Your task to perform on an android device: turn off location history Image 0: 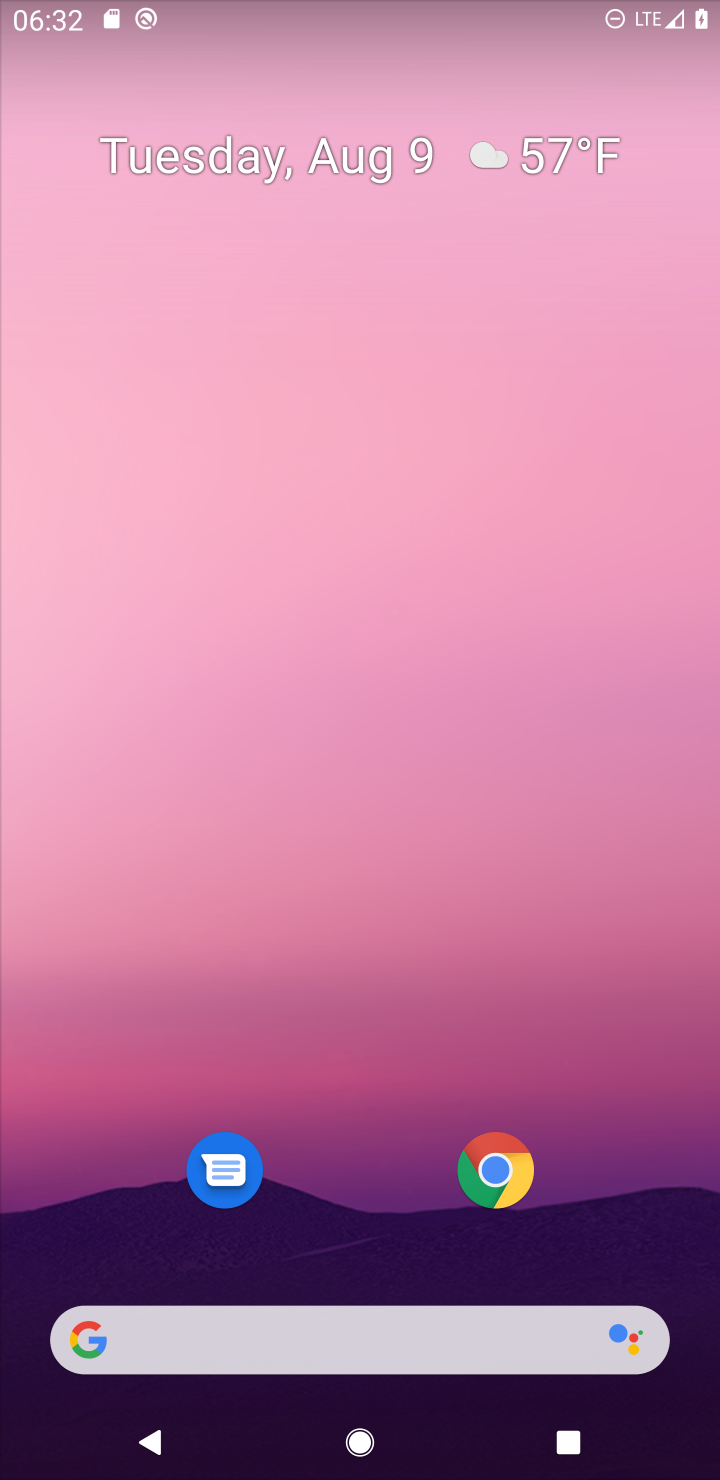
Step 0: press home button
Your task to perform on an android device: turn off location history Image 1: 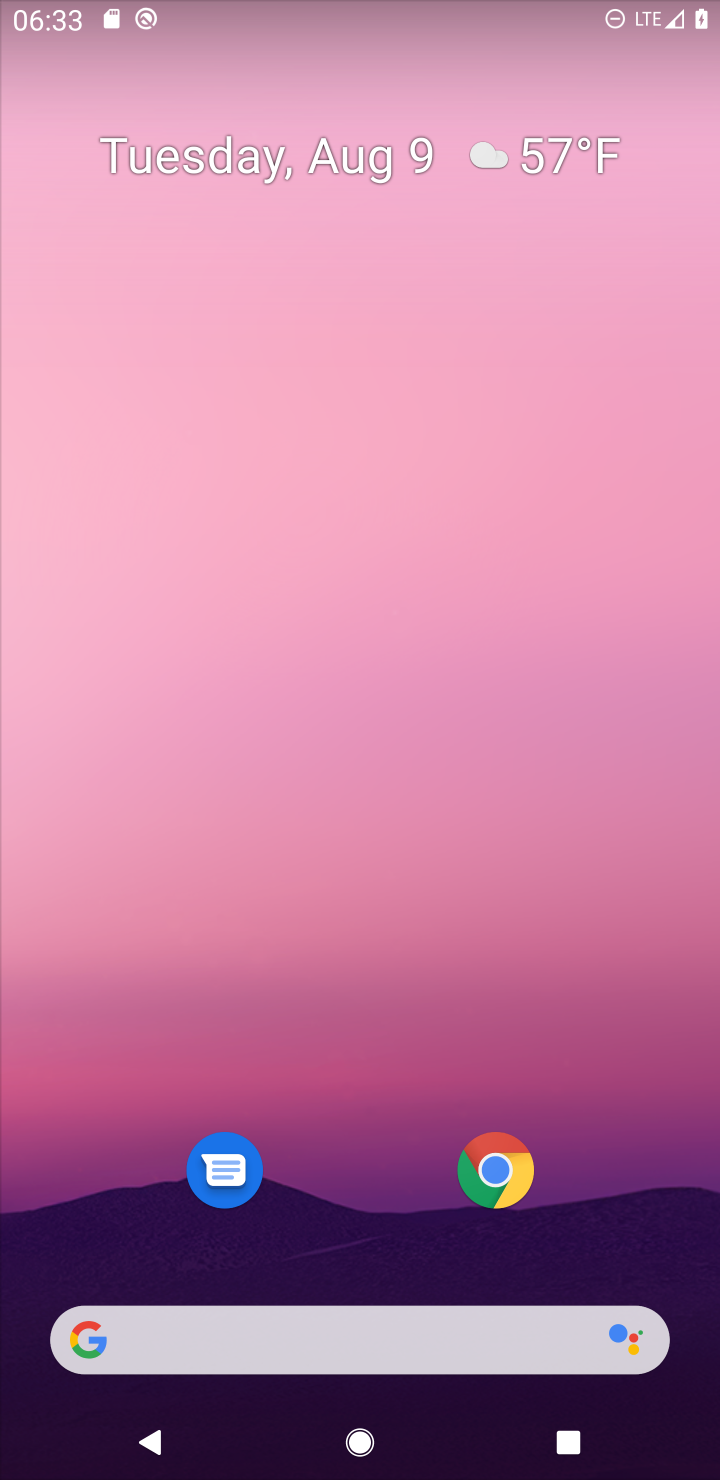
Step 1: drag from (368, 1228) to (270, 102)
Your task to perform on an android device: turn off location history Image 2: 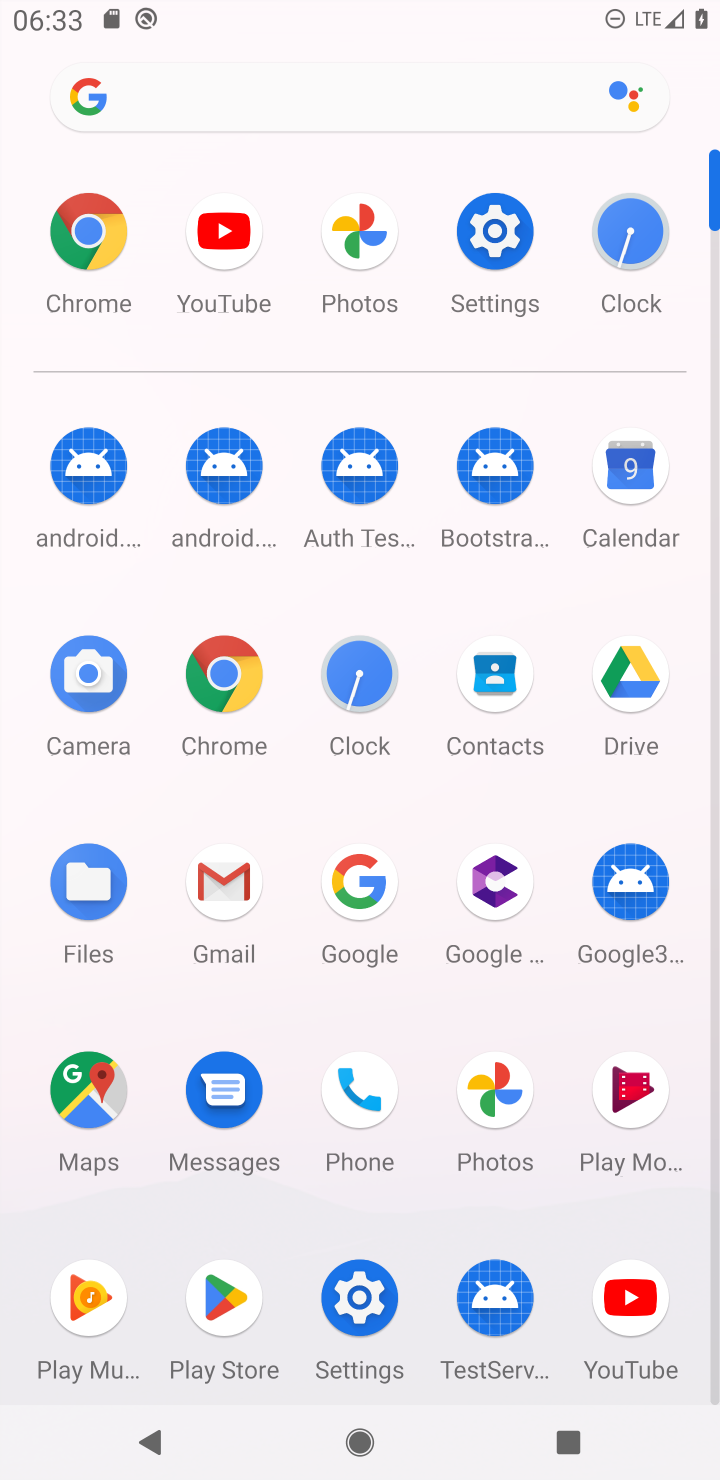
Step 2: click (360, 1297)
Your task to perform on an android device: turn off location history Image 3: 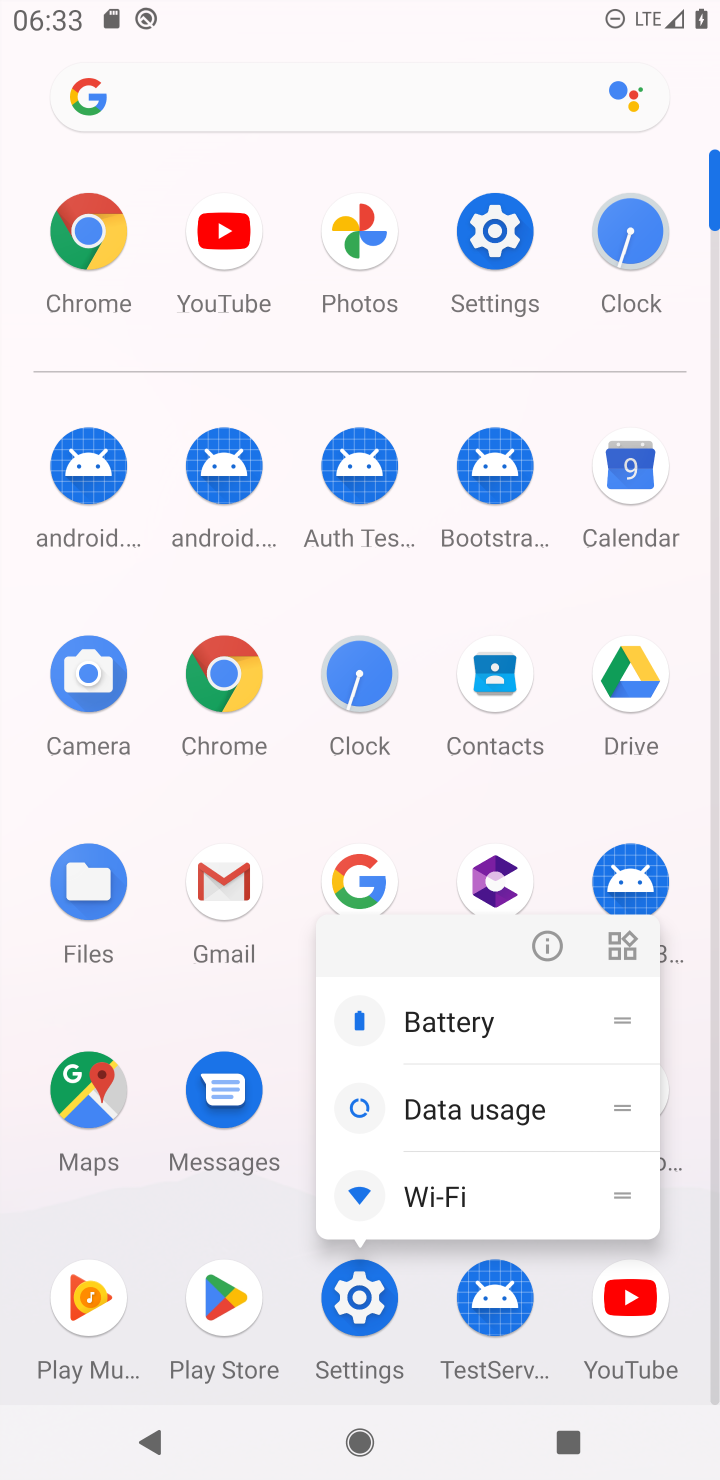
Step 3: click (491, 219)
Your task to perform on an android device: turn off location history Image 4: 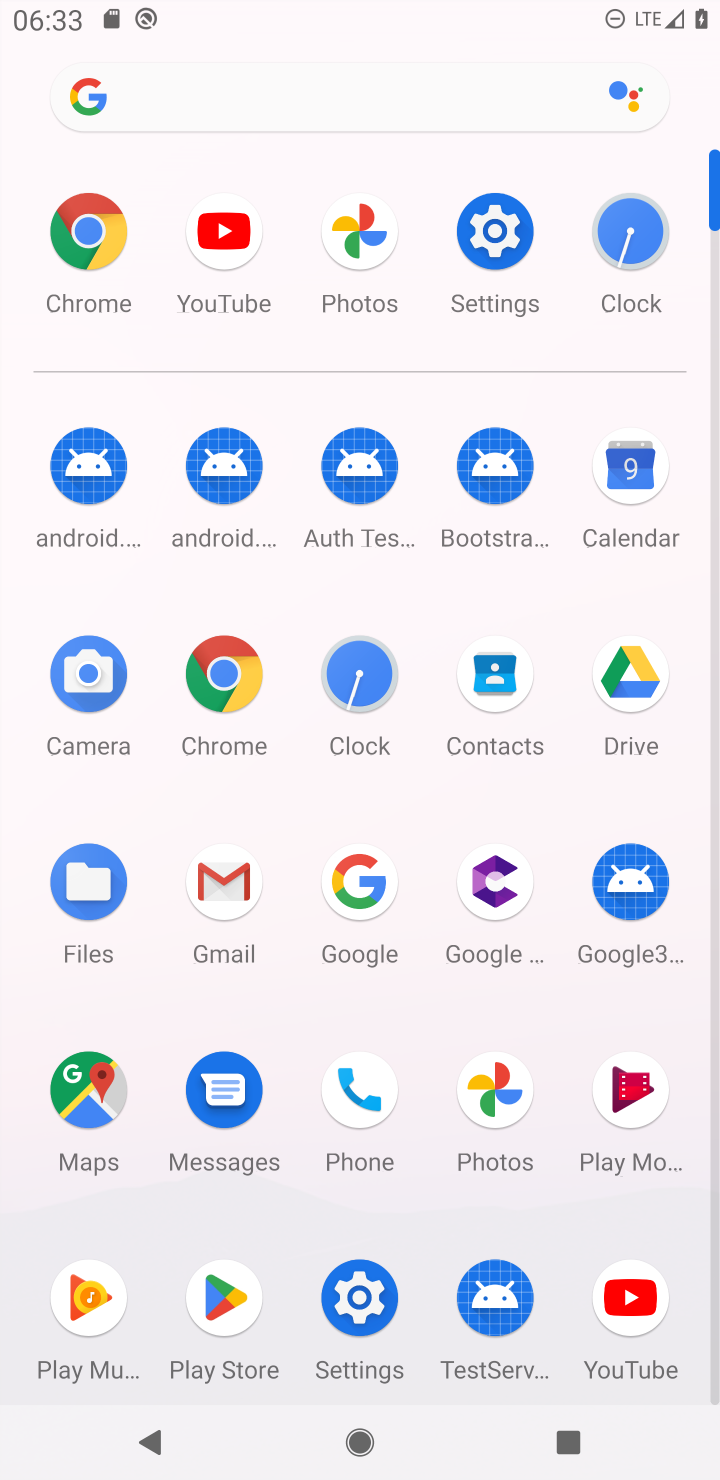
Step 4: click (491, 219)
Your task to perform on an android device: turn off location history Image 5: 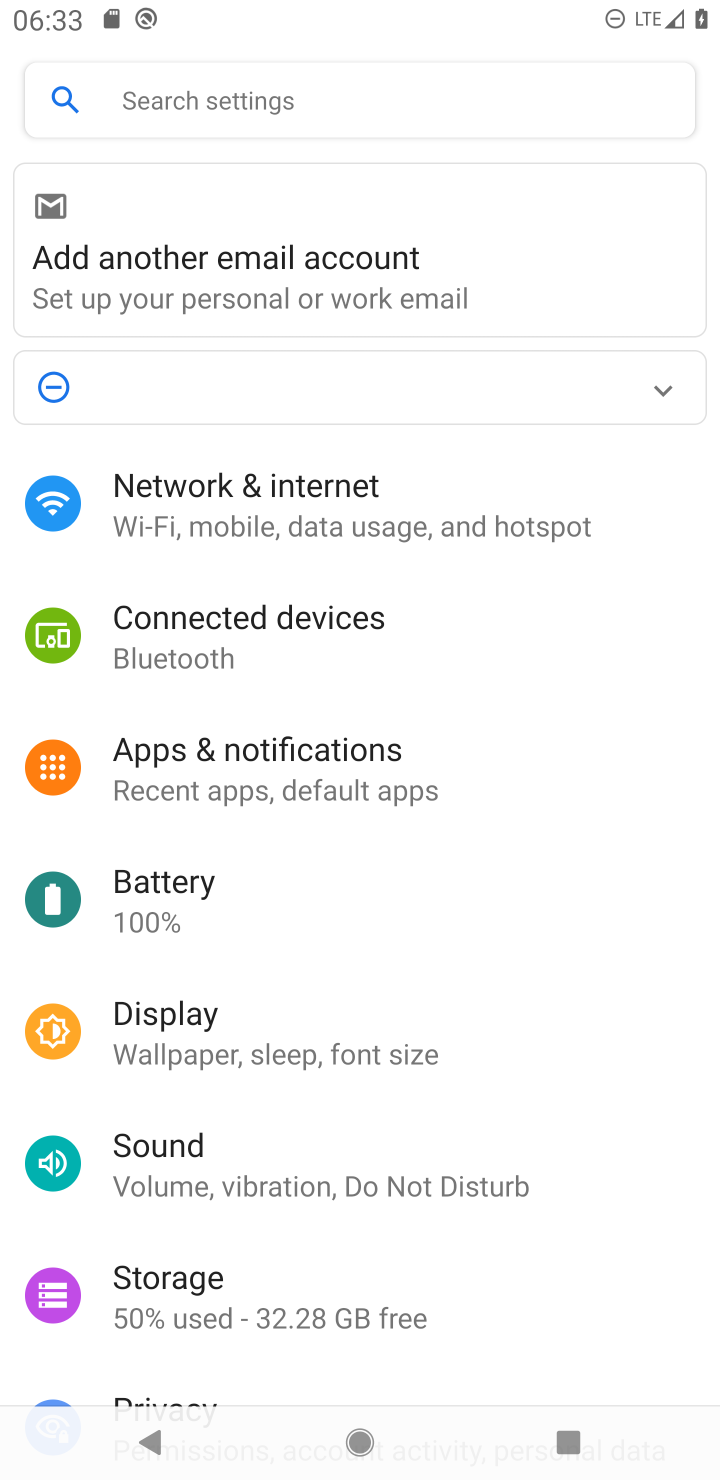
Step 5: drag from (415, 1360) to (273, 305)
Your task to perform on an android device: turn off location history Image 6: 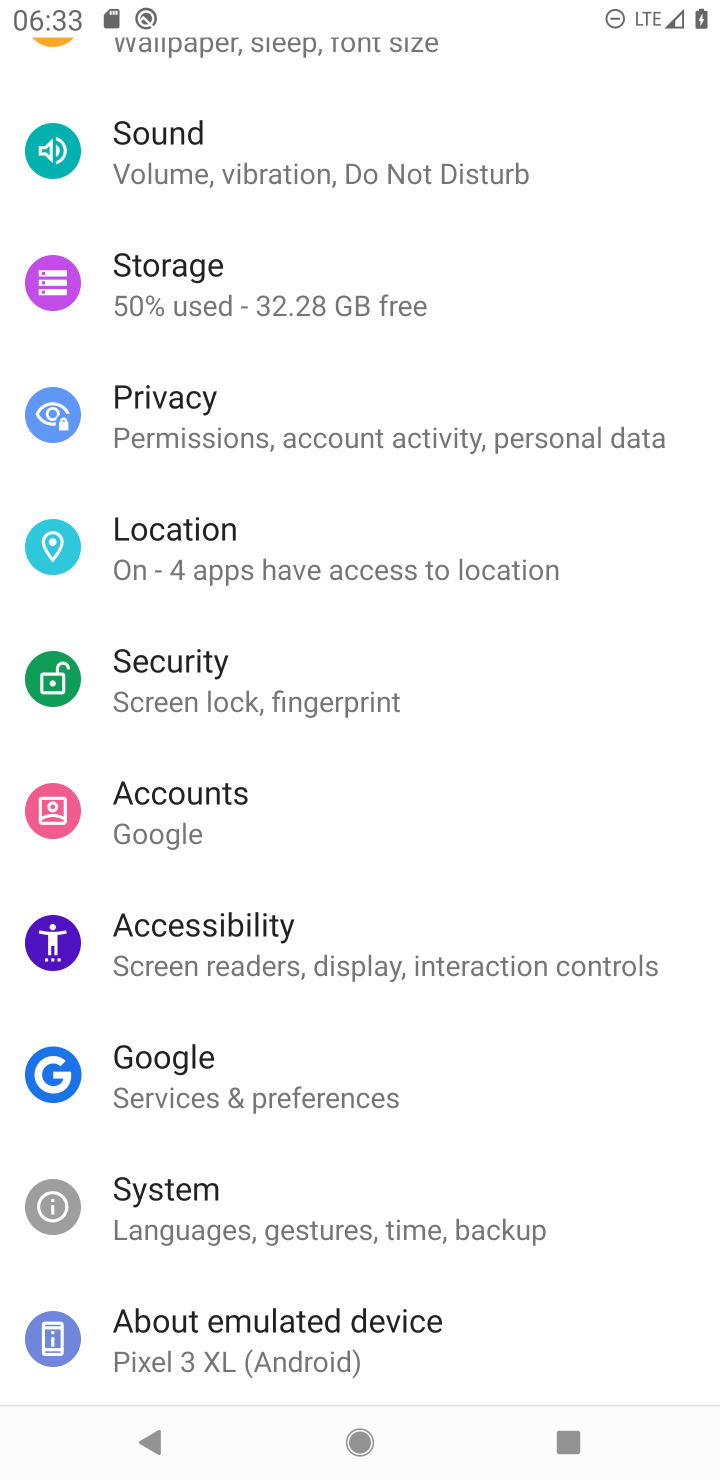
Step 6: click (159, 554)
Your task to perform on an android device: turn off location history Image 7: 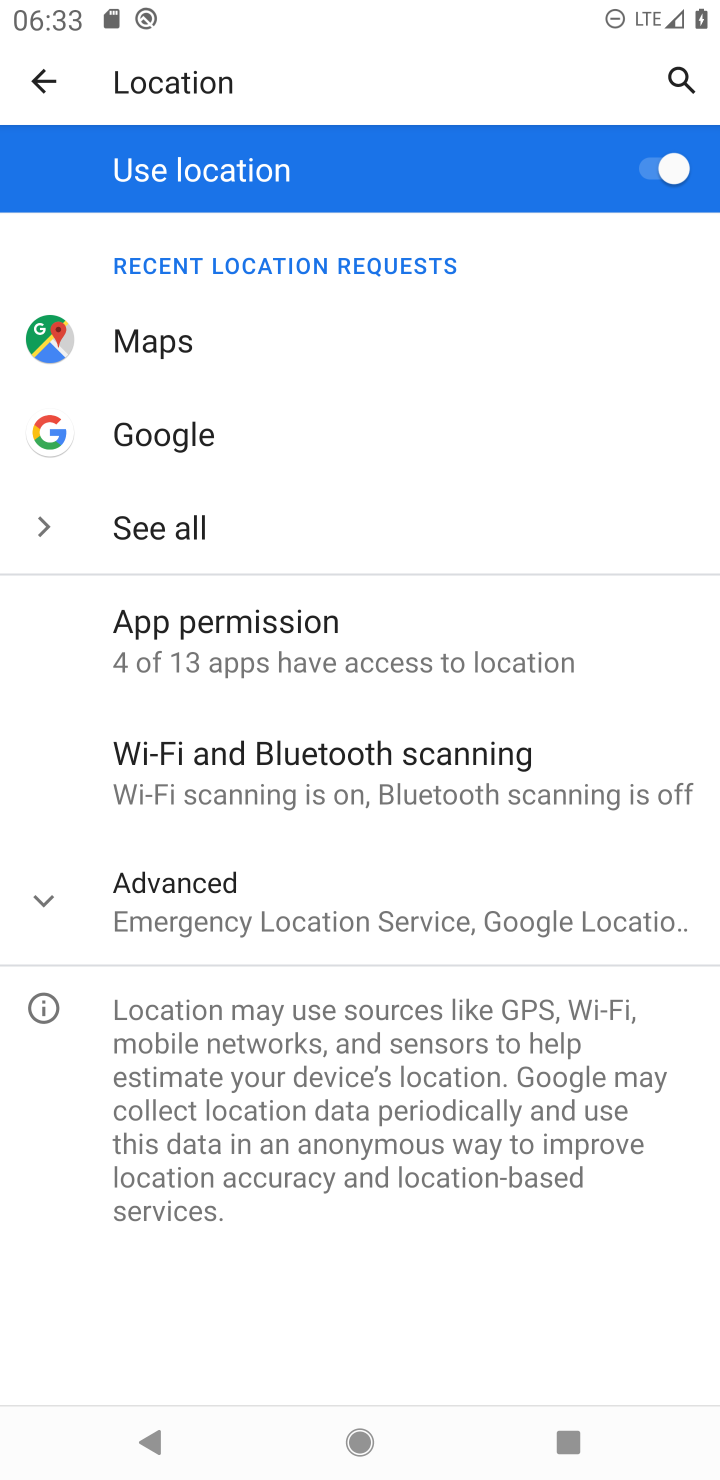
Step 7: click (180, 899)
Your task to perform on an android device: turn off location history Image 8: 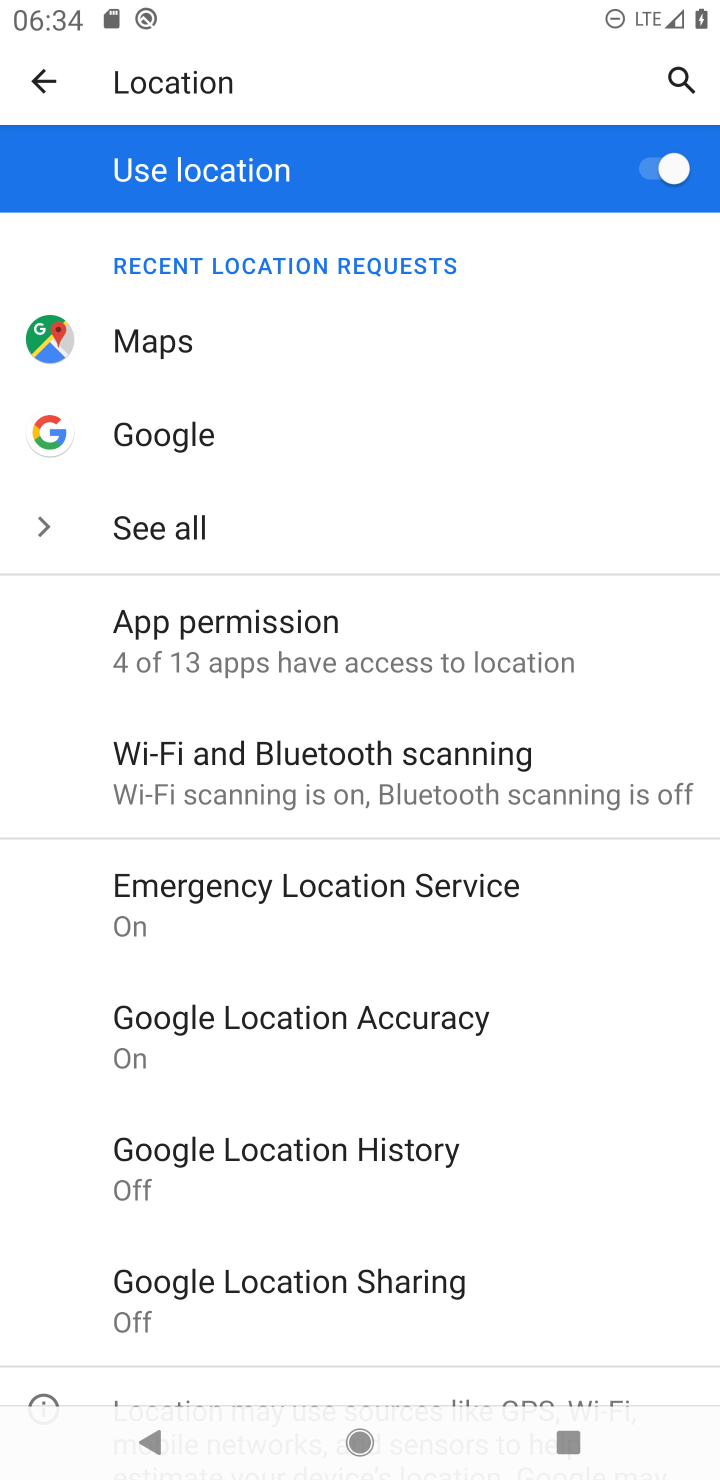
Step 8: click (329, 1161)
Your task to perform on an android device: turn off location history Image 9: 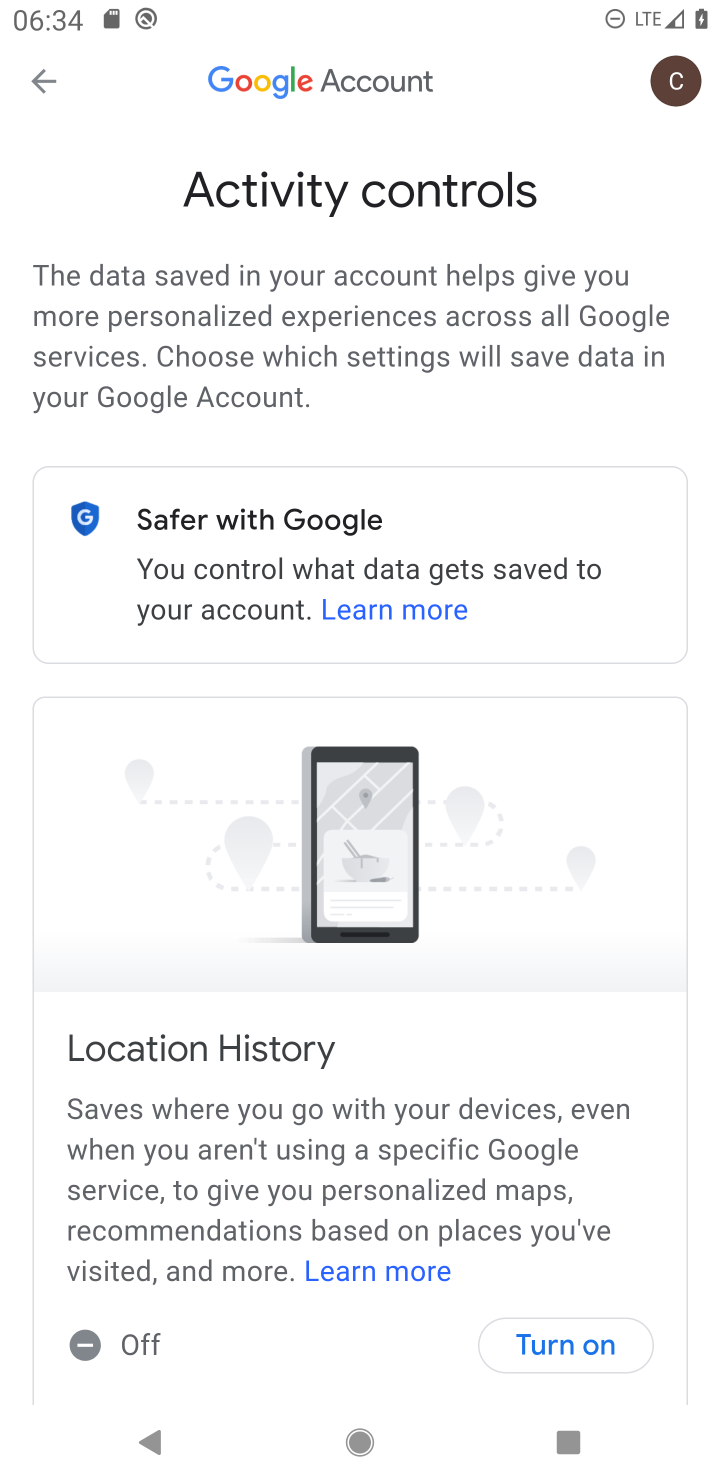
Step 9: task complete